Your task to perform on an android device: Go to display settings Image 0: 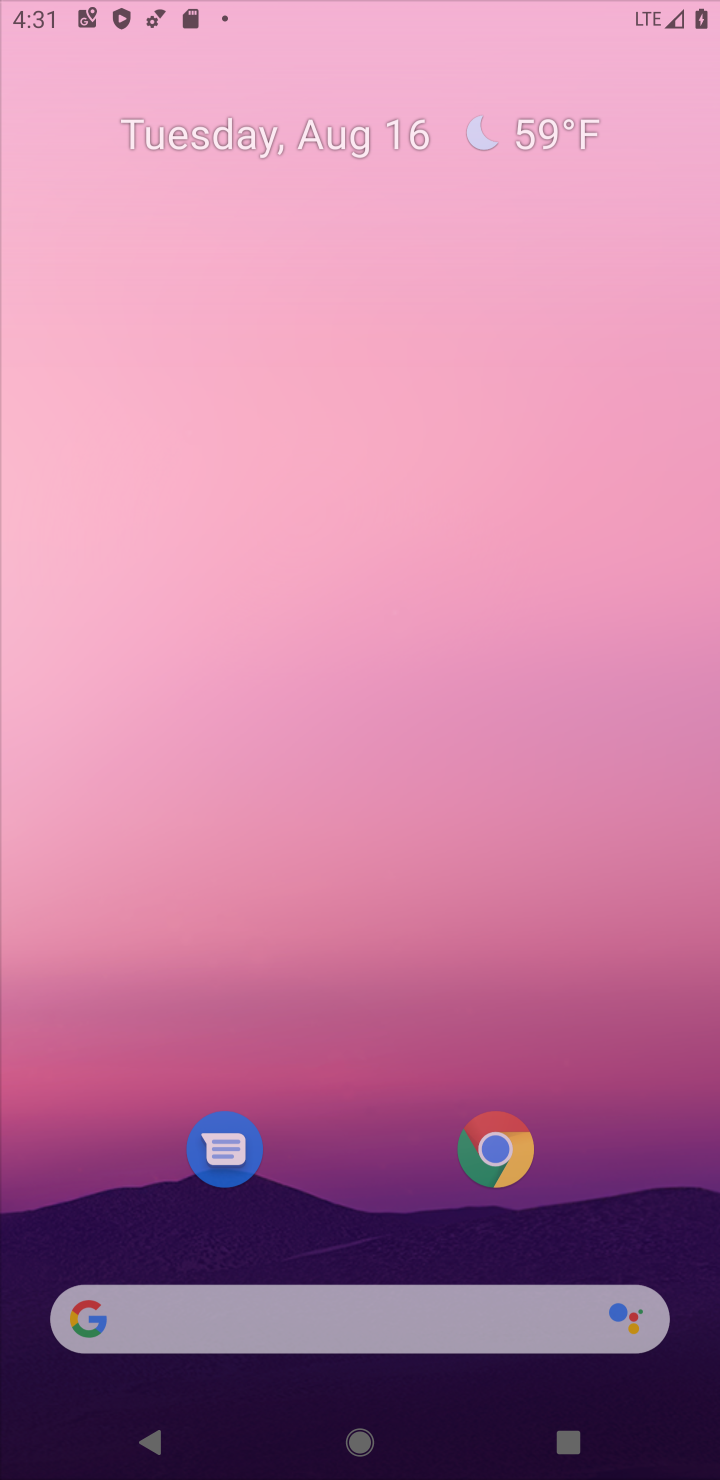
Step 0: press back button
Your task to perform on an android device: Go to display settings Image 1: 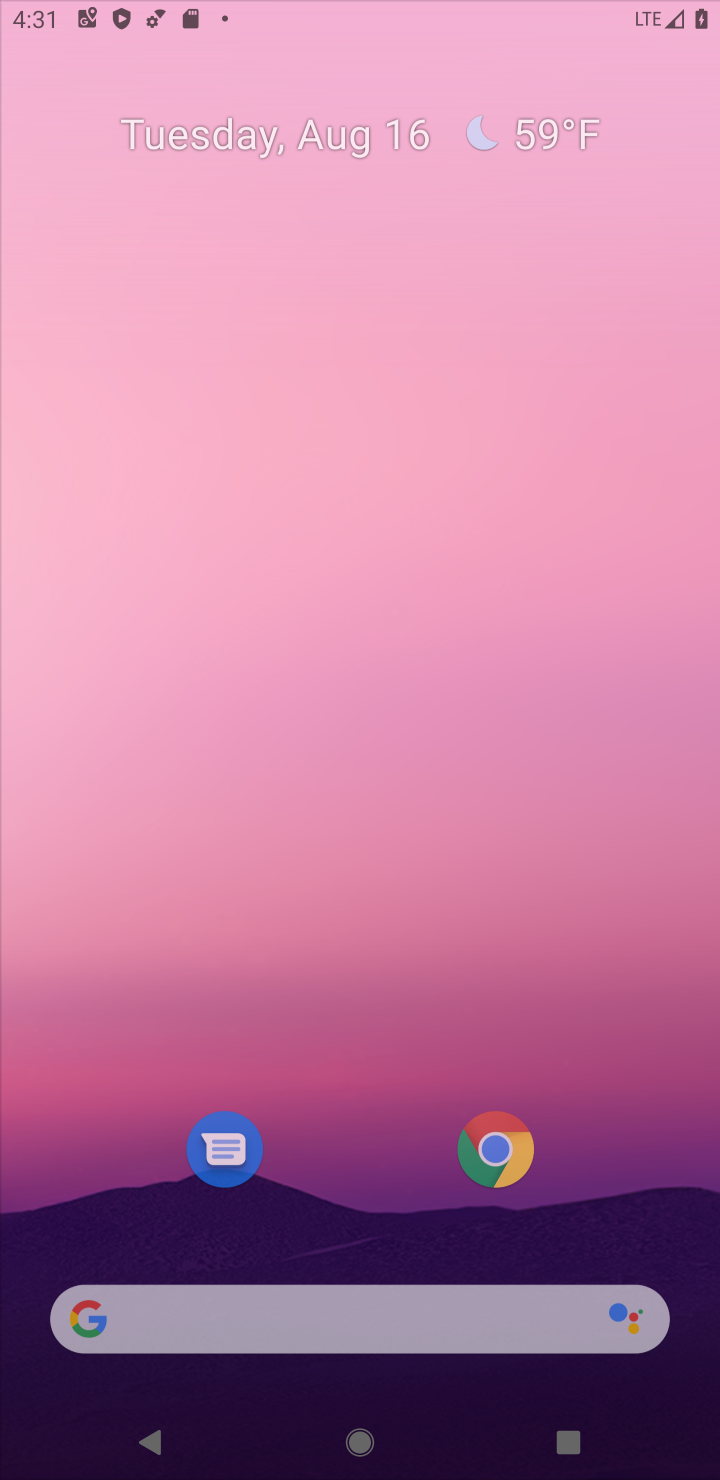
Step 1: press home button
Your task to perform on an android device: Go to display settings Image 2: 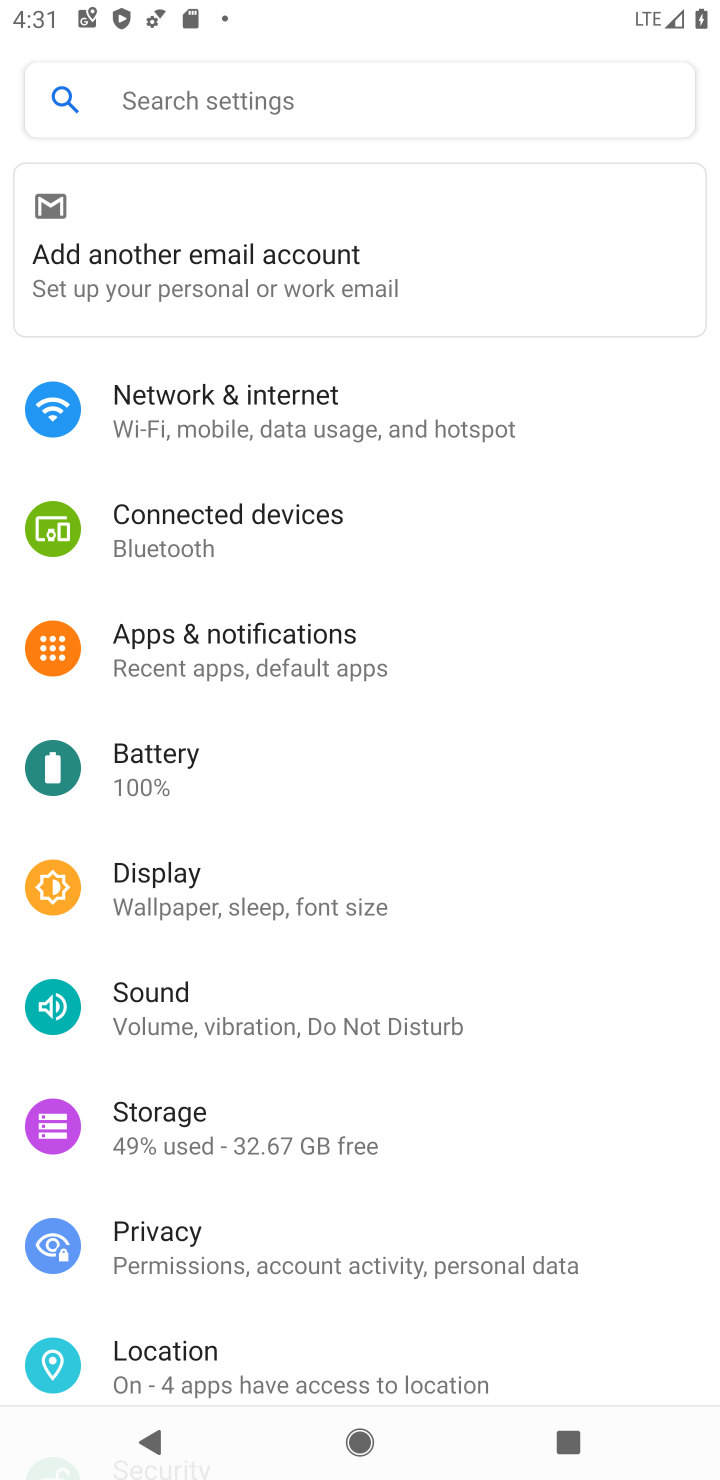
Step 2: click (98, 46)
Your task to perform on an android device: Go to display settings Image 3: 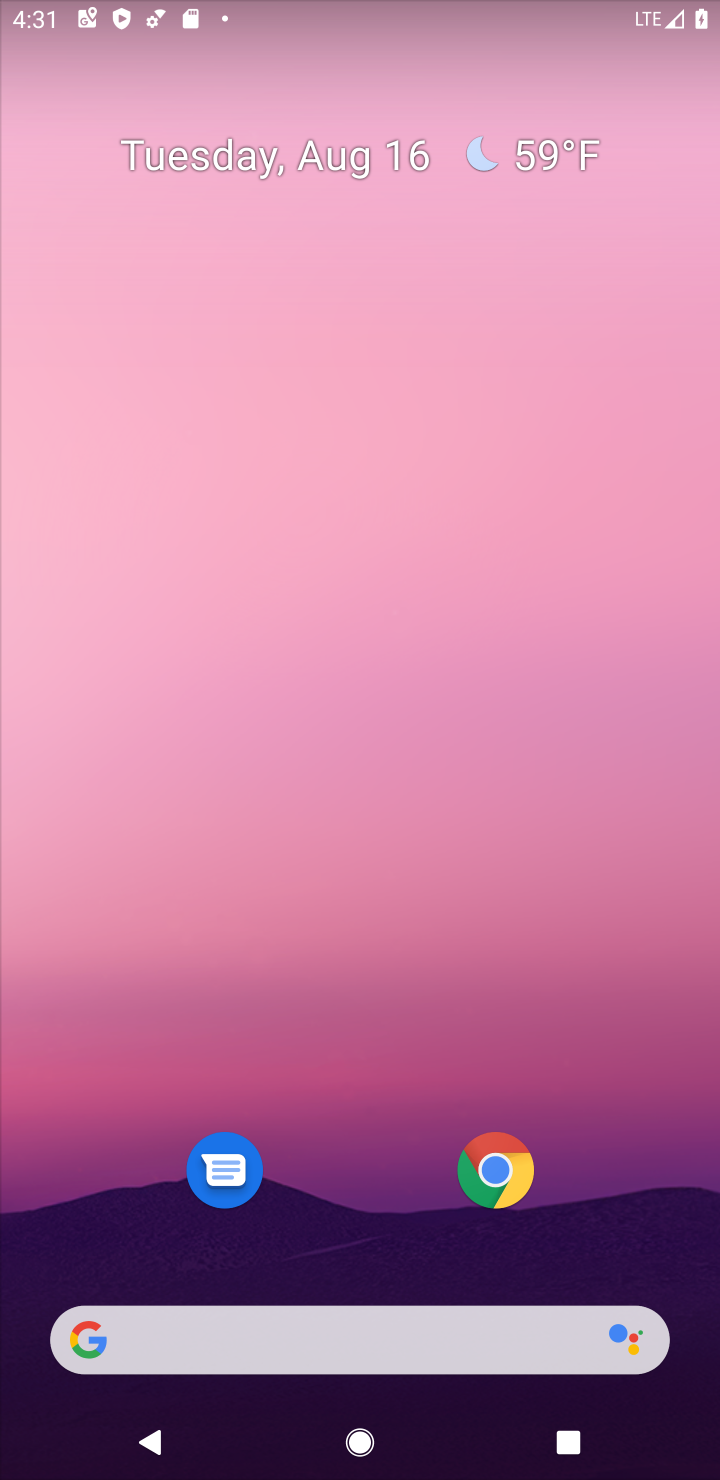
Step 3: drag from (356, 1227) to (229, 20)
Your task to perform on an android device: Go to display settings Image 4: 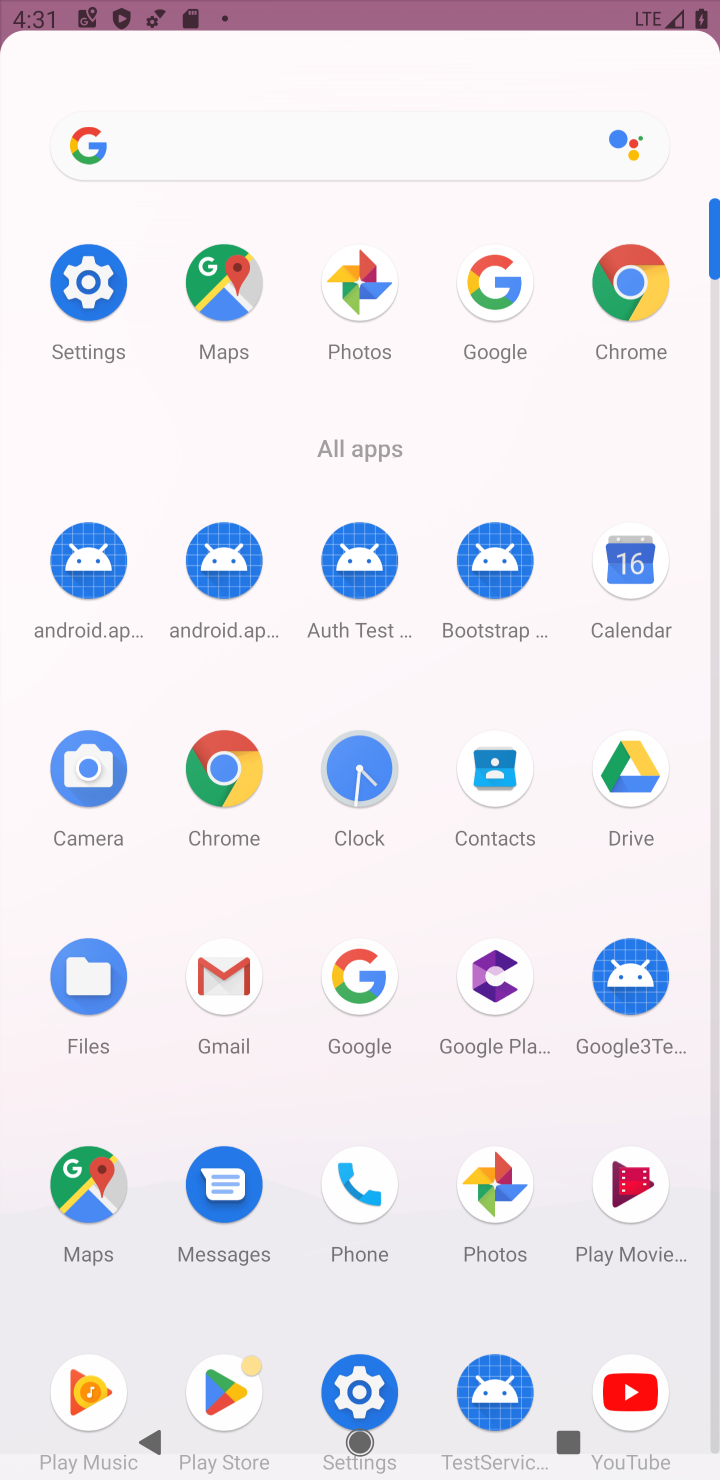
Step 4: click (63, 274)
Your task to perform on an android device: Go to display settings Image 5: 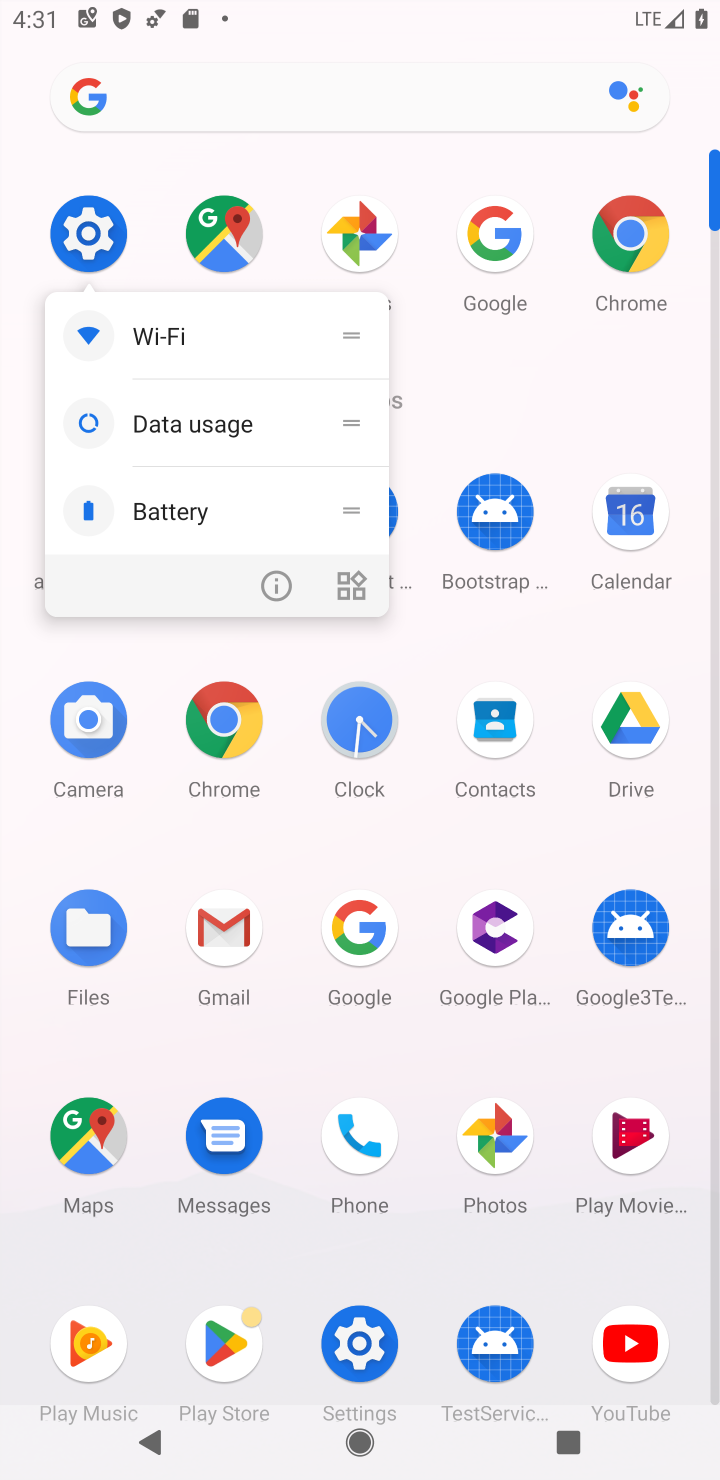
Step 5: click (113, 254)
Your task to perform on an android device: Go to display settings Image 6: 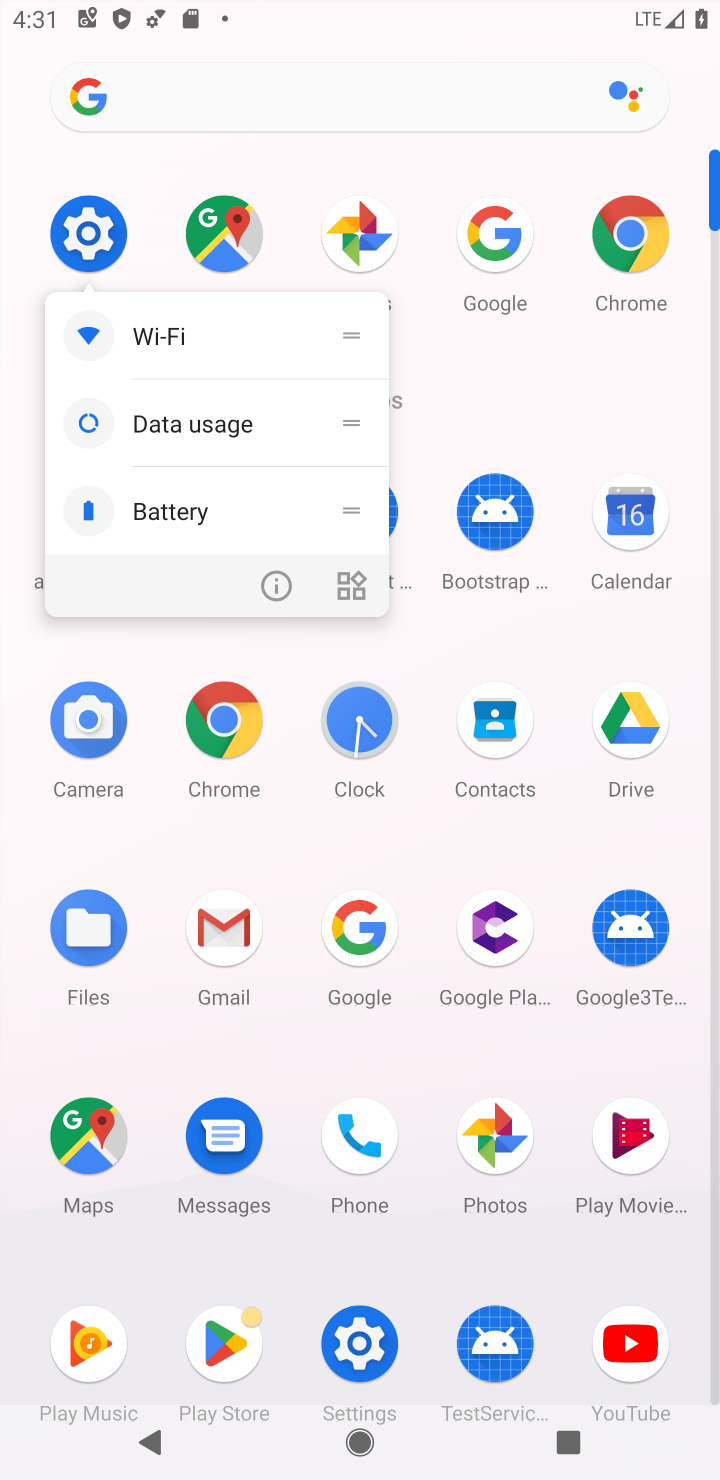
Step 6: click (84, 191)
Your task to perform on an android device: Go to display settings Image 7: 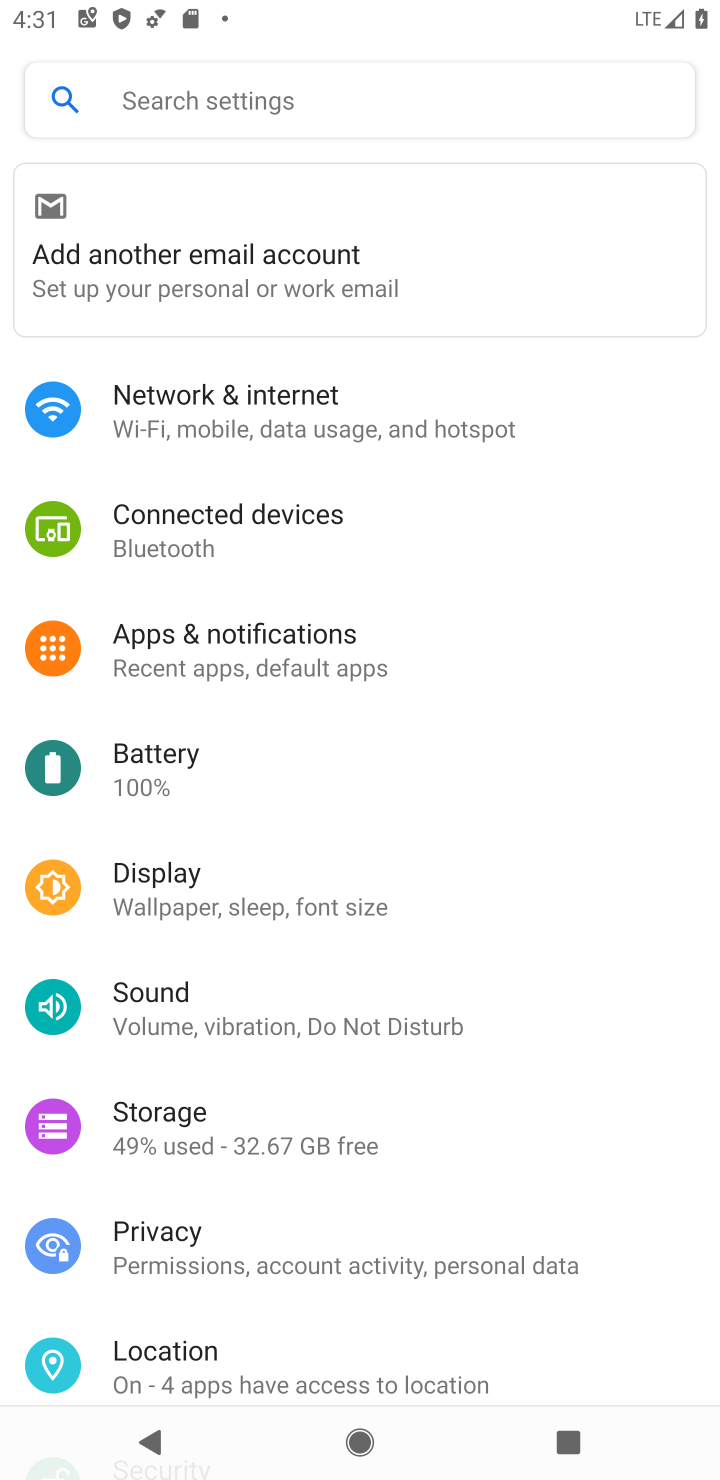
Step 7: click (174, 895)
Your task to perform on an android device: Go to display settings Image 8: 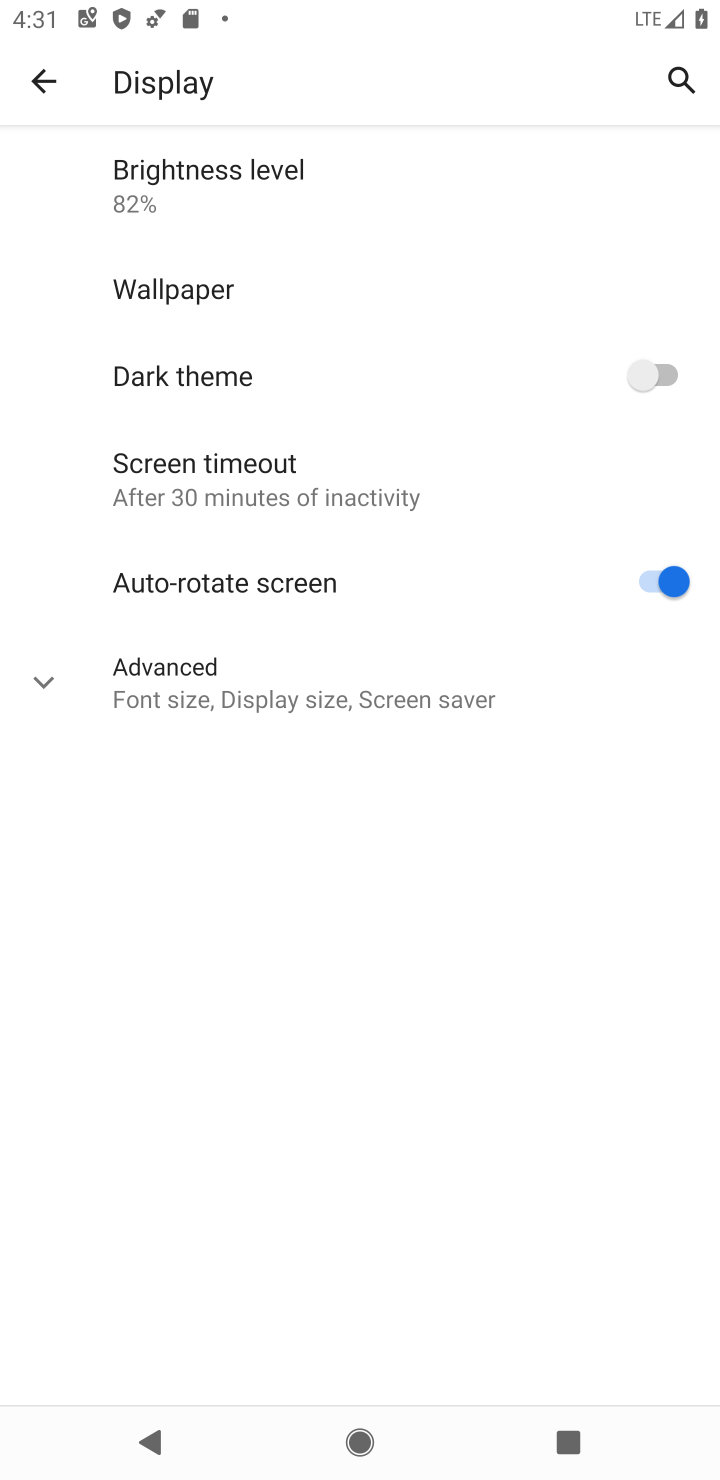
Step 8: click (228, 699)
Your task to perform on an android device: Go to display settings Image 9: 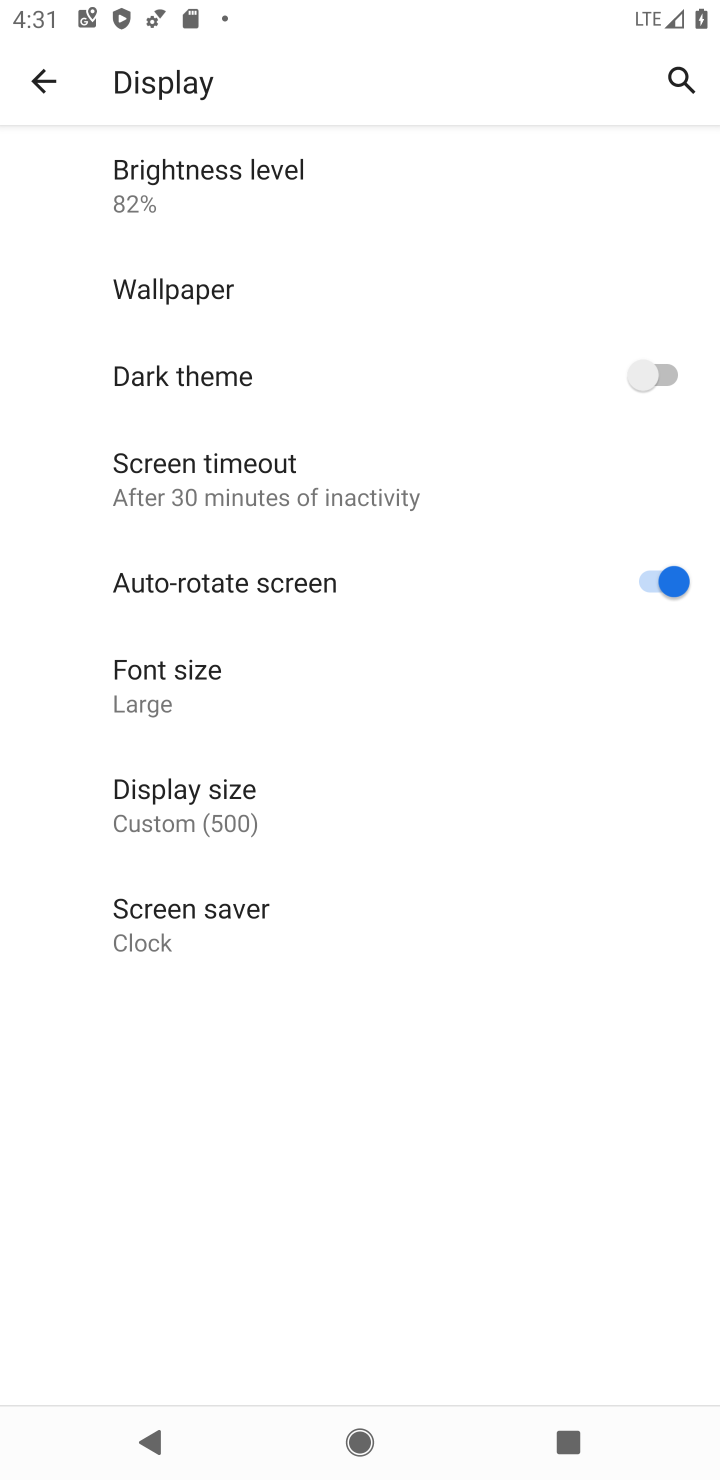
Step 9: task complete